Your task to perform on an android device: Open settings Image 0: 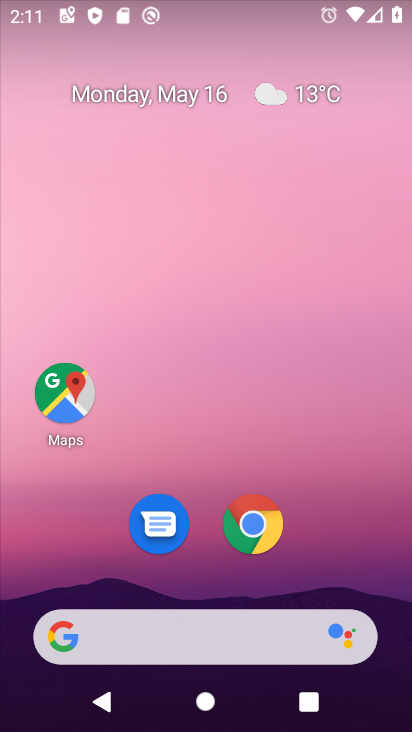
Step 0: drag from (340, 523) to (325, 78)
Your task to perform on an android device: Open settings Image 1: 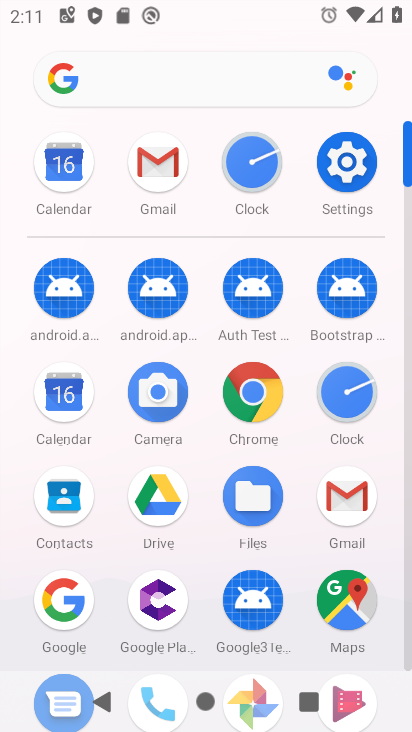
Step 1: click (334, 169)
Your task to perform on an android device: Open settings Image 2: 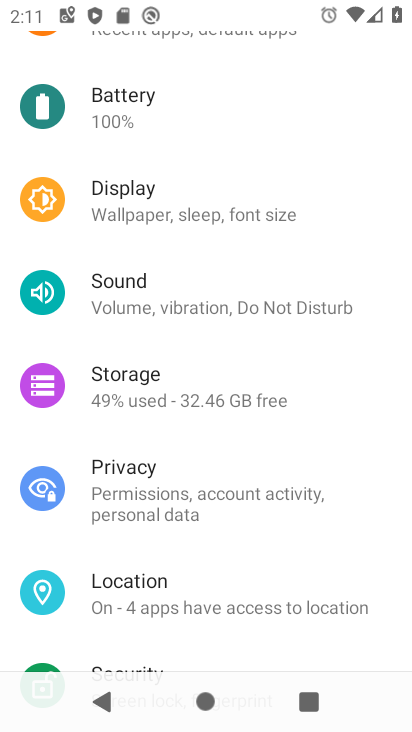
Step 2: task complete